Your task to perform on an android device: Show the shopping cart on bestbuy.com. Search for dell alienware on bestbuy.com, select the first entry, and add it to the cart. Image 0: 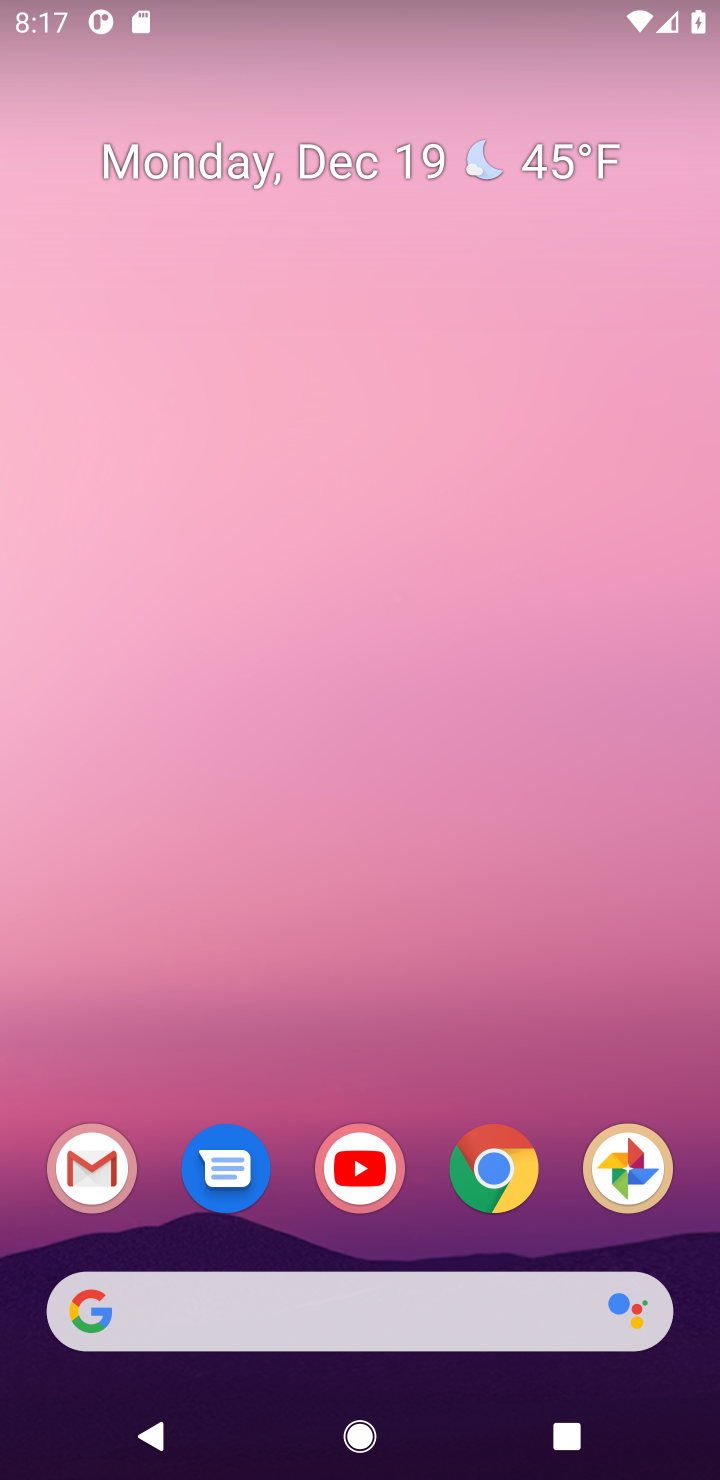
Step 0: click (501, 1172)
Your task to perform on an android device: Show the shopping cart on bestbuy.com. Search for dell alienware on bestbuy.com, select the first entry, and add it to the cart. Image 1: 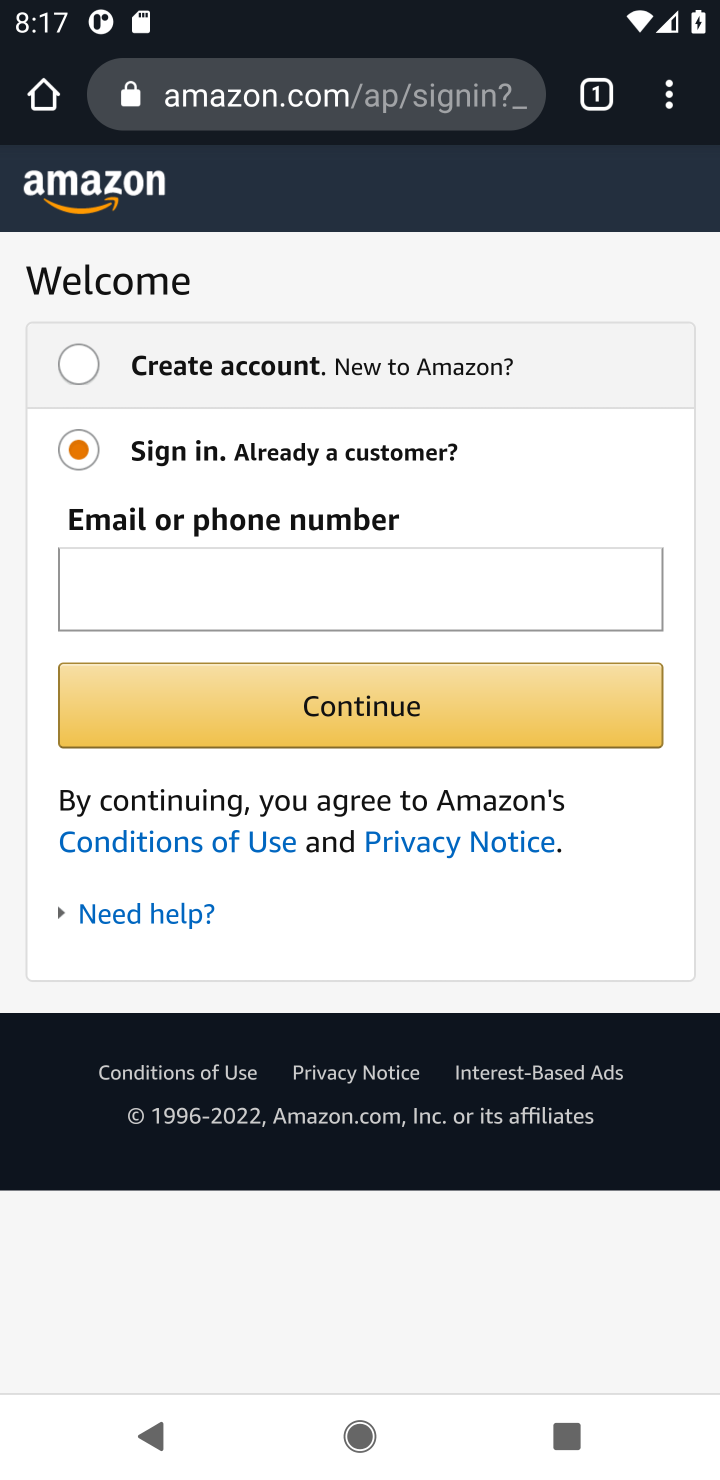
Step 1: click (259, 97)
Your task to perform on an android device: Show the shopping cart on bestbuy.com. Search for dell alienware on bestbuy.com, select the first entry, and add it to the cart. Image 2: 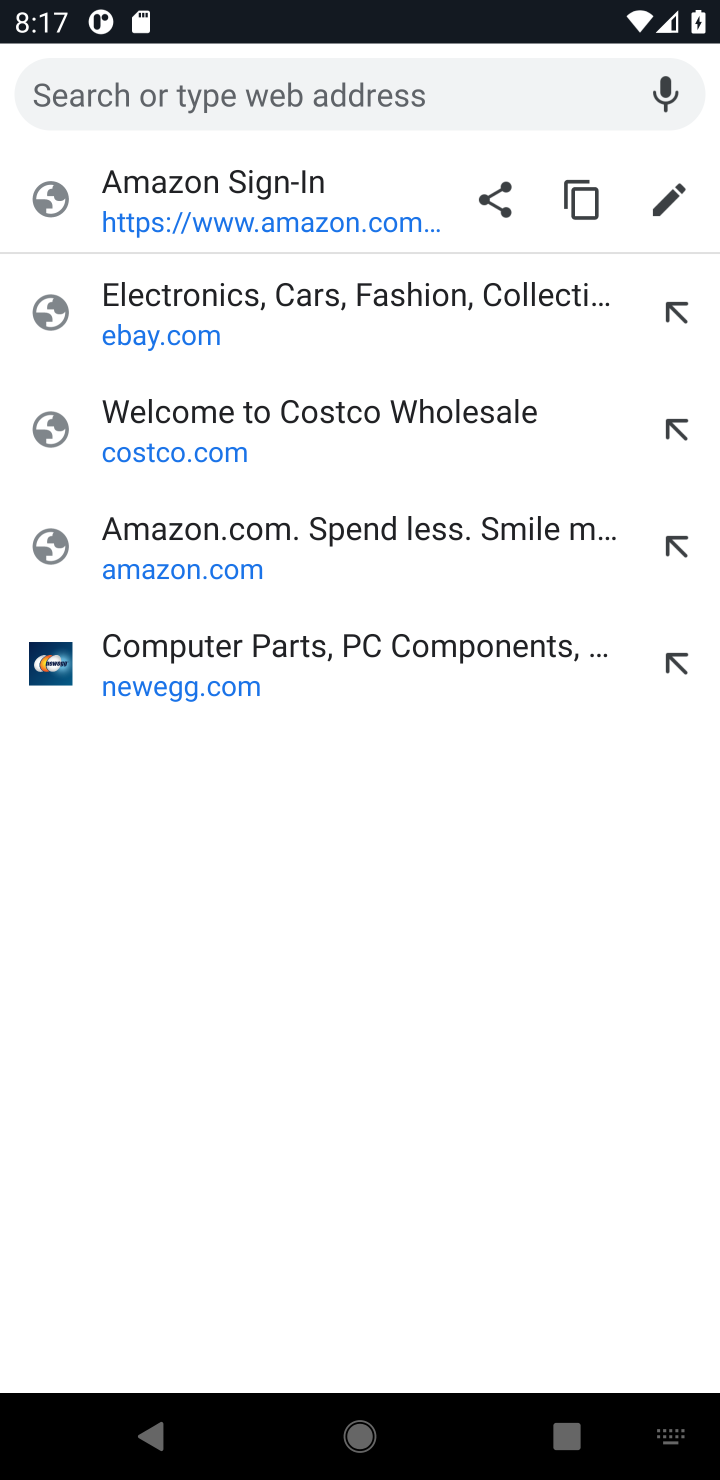
Step 2: type "bestbuy.com"
Your task to perform on an android device: Show the shopping cart on bestbuy.com. Search for dell alienware on bestbuy.com, select the first entry, and add it to the cart. Image 3: 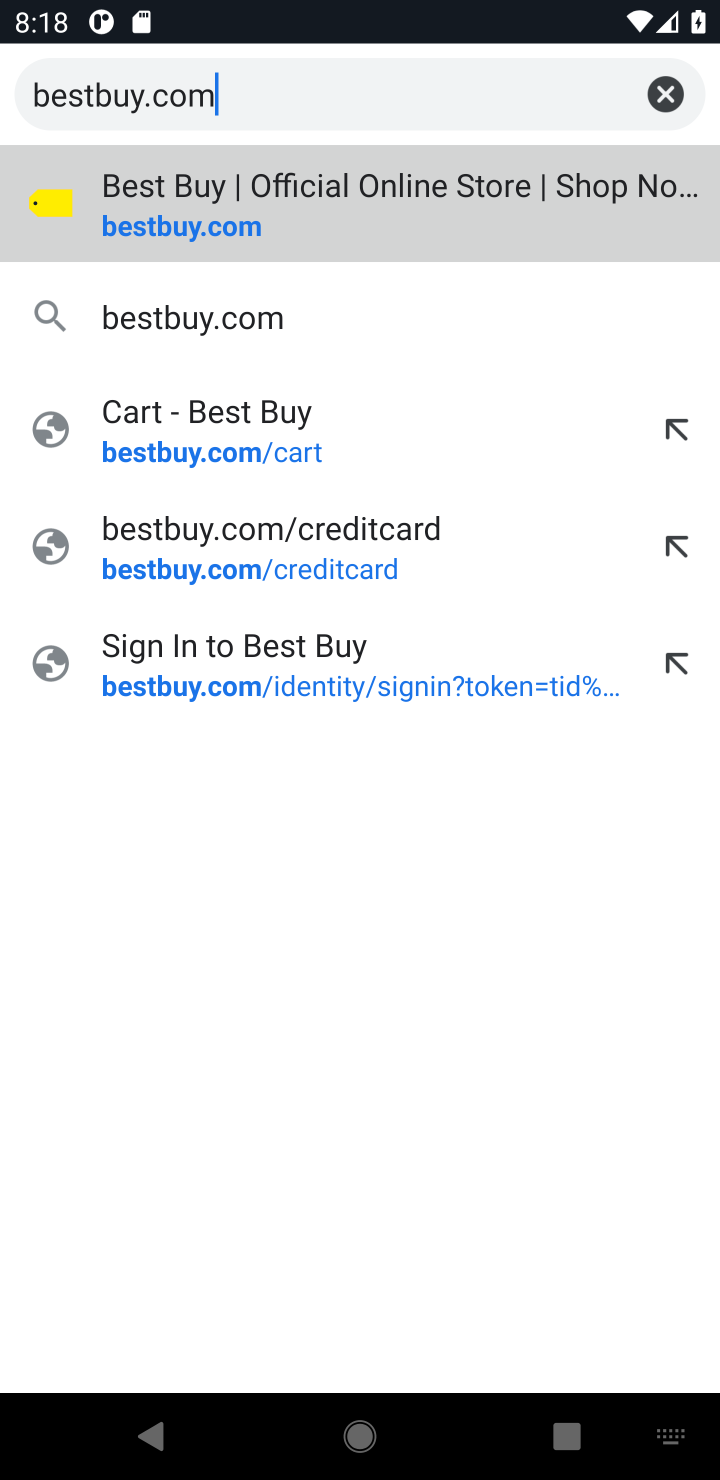
Step 3: click (188, 235)
Your task to perform on an android device: Show the shopping cart on bestbuy.com. Search for dell alienware on bestbuy.com, select the first entry, and add it to the cart. Image 4: 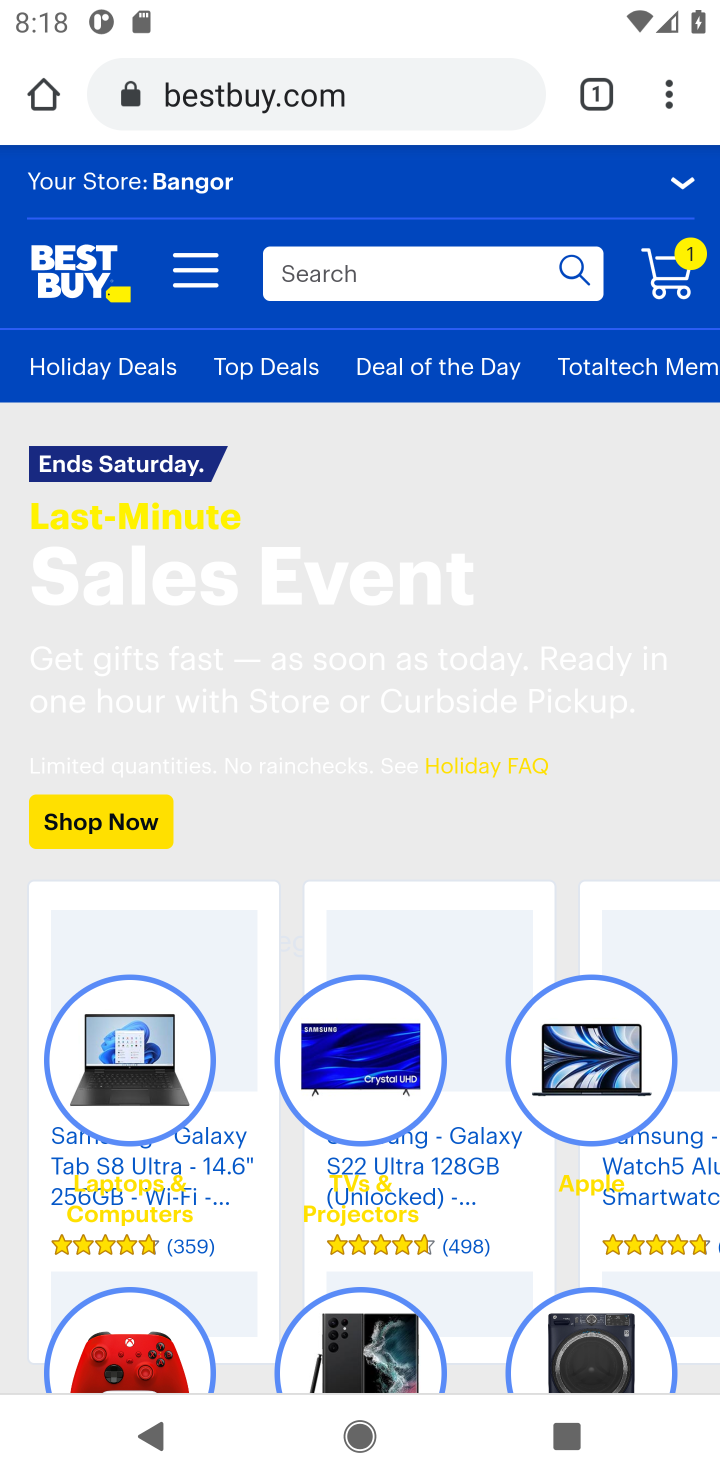
Step 4: click (677, 270)
Your task to perform on an android device: Show the shopping cart on bestbuy.com. Search for dell alienware on bestbuy.com, select the first entry, and add it to the cart. Image 5: 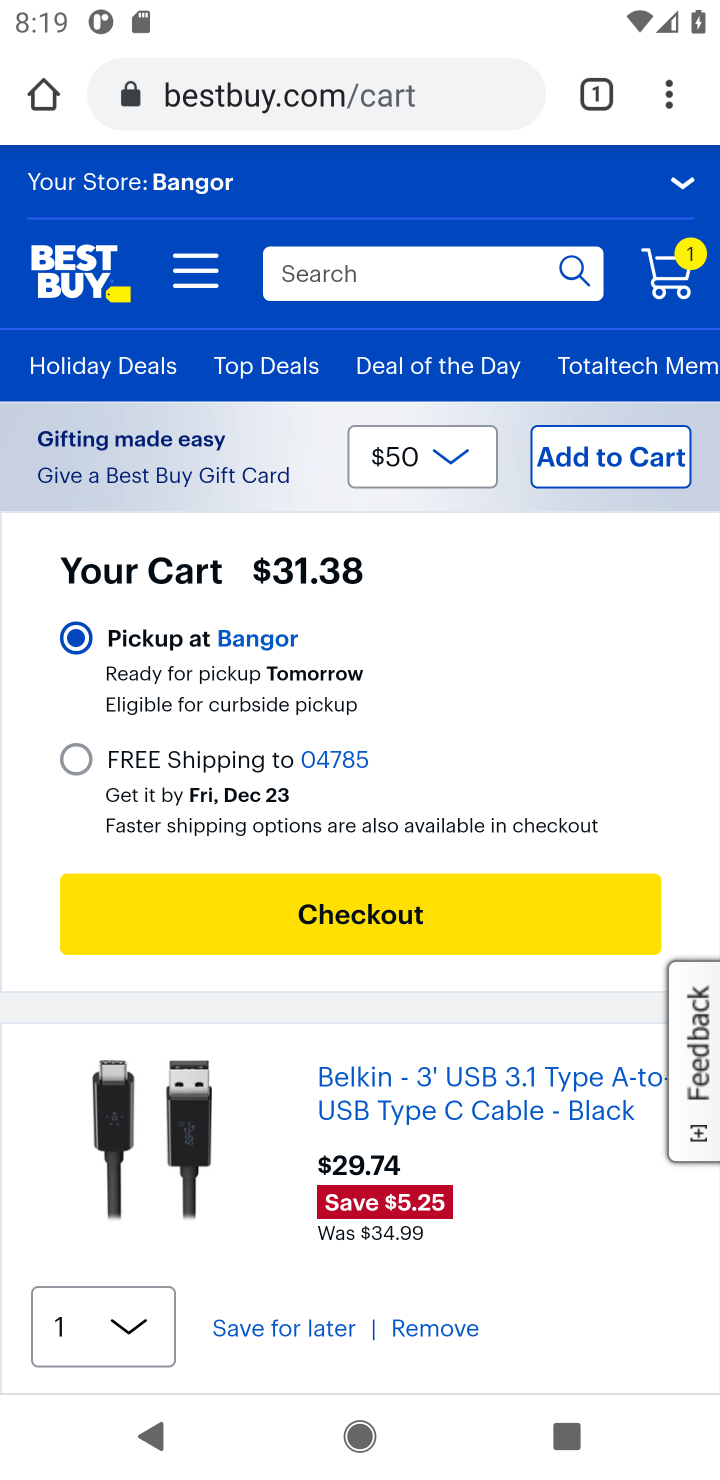
Step 5: click (379, 267)
Your task to perform on an android device: Show the shopping cart on bestbuy.com. Search for dell alienware on bestbuy.com, select the first entry, and add it to the cart. Image 6: 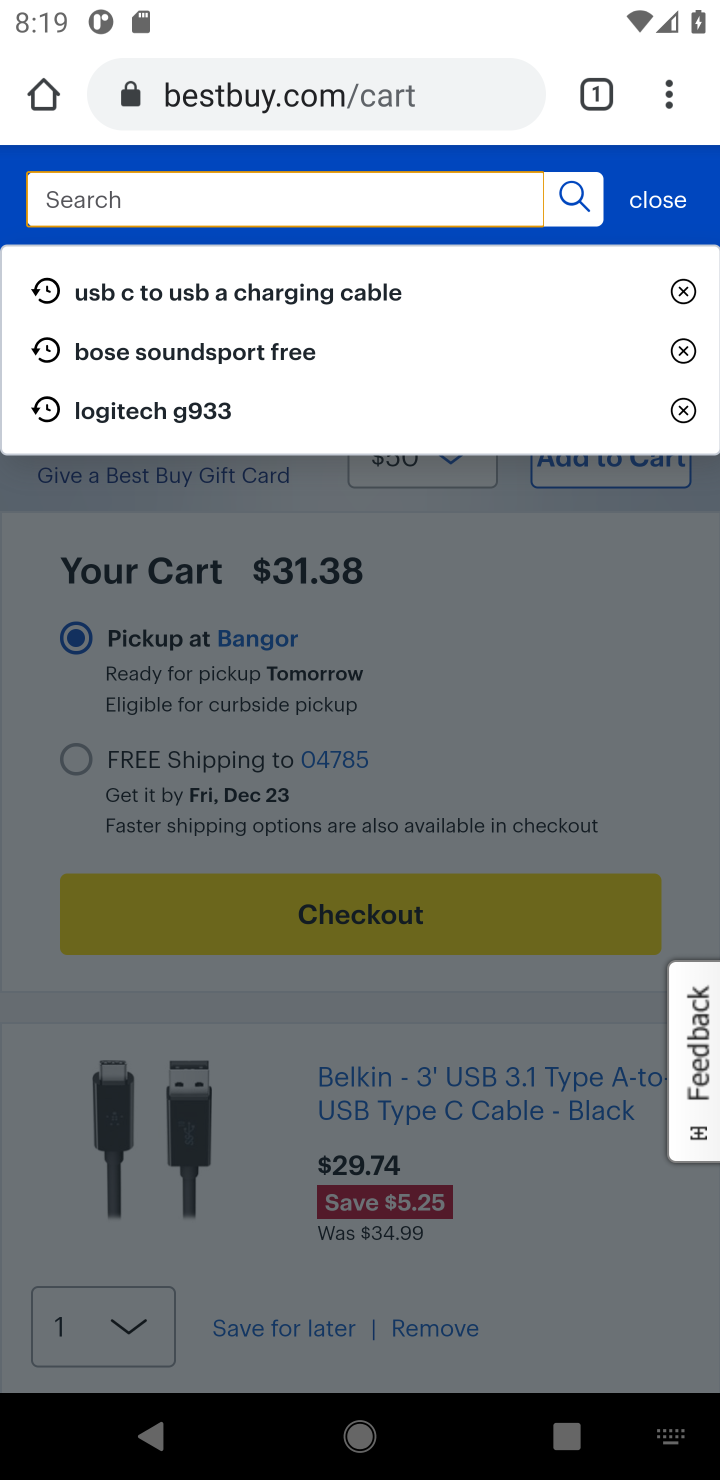
Step 6: type "dell alienware"
Your task to perform on an android device: Show the shopping cart on bestbuy.com. Search for dell alienware on bestbuy.com, select the first entry, and add it to the cart. Image 7: 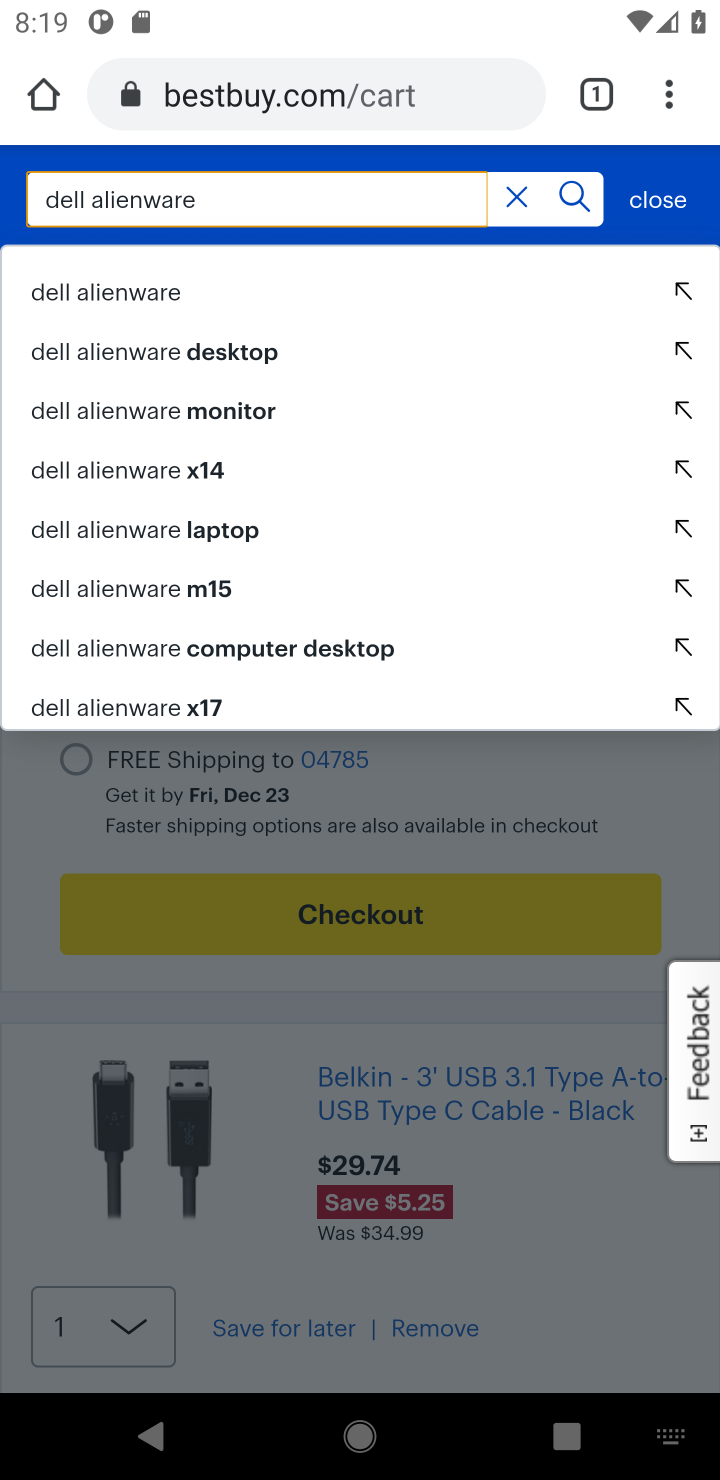
Step 7: click (58, 300)
Your task to perform on an android device: Show the shopping cart on bestbuy.com. Search for dell alienware on bestbuy.com, select the first entry, and add it to the cart. Image 8: 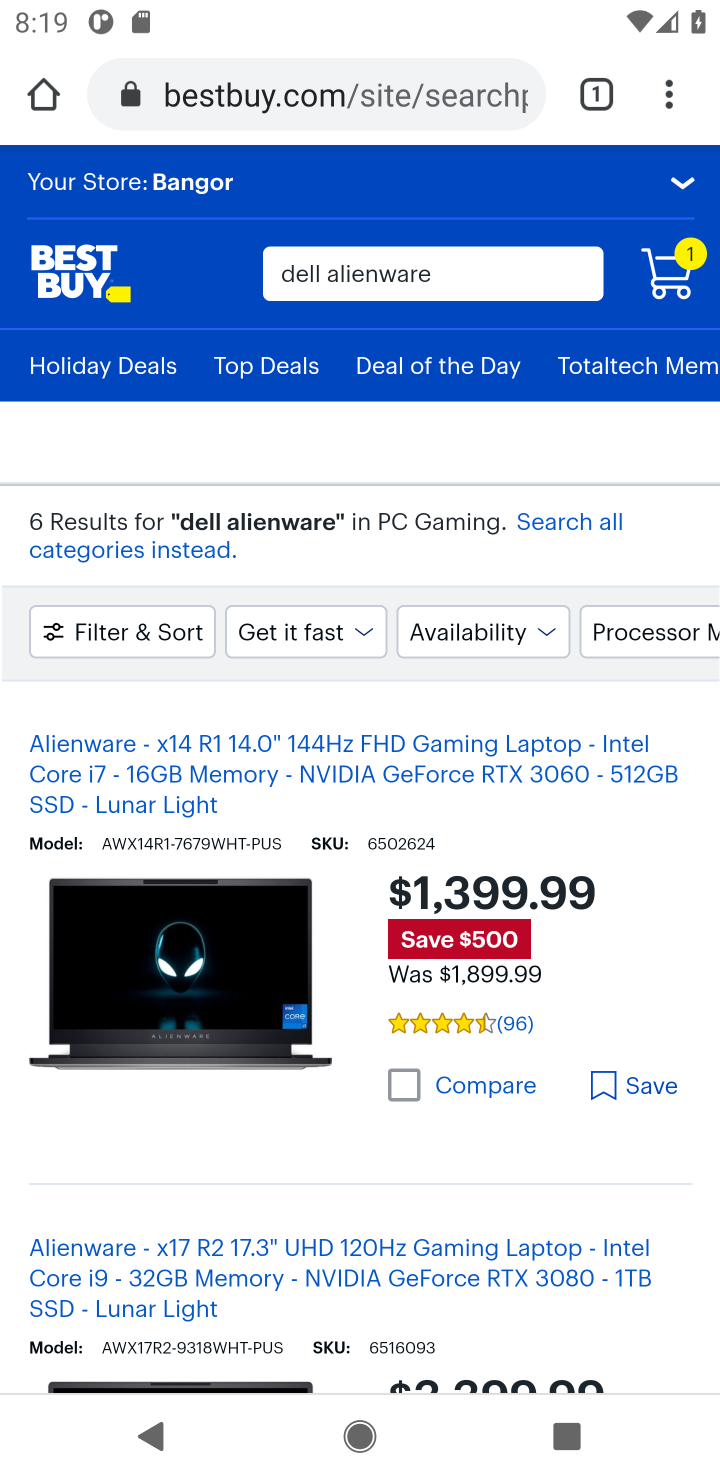
Step 8: drag from (273, 1080) to (245, 715)
Your task to perform on an android device: Show the shopping cart on bestbuy.com. Search for dell alienware on bestbuy.com, select the first entry, and add it to the cart. Image 9: 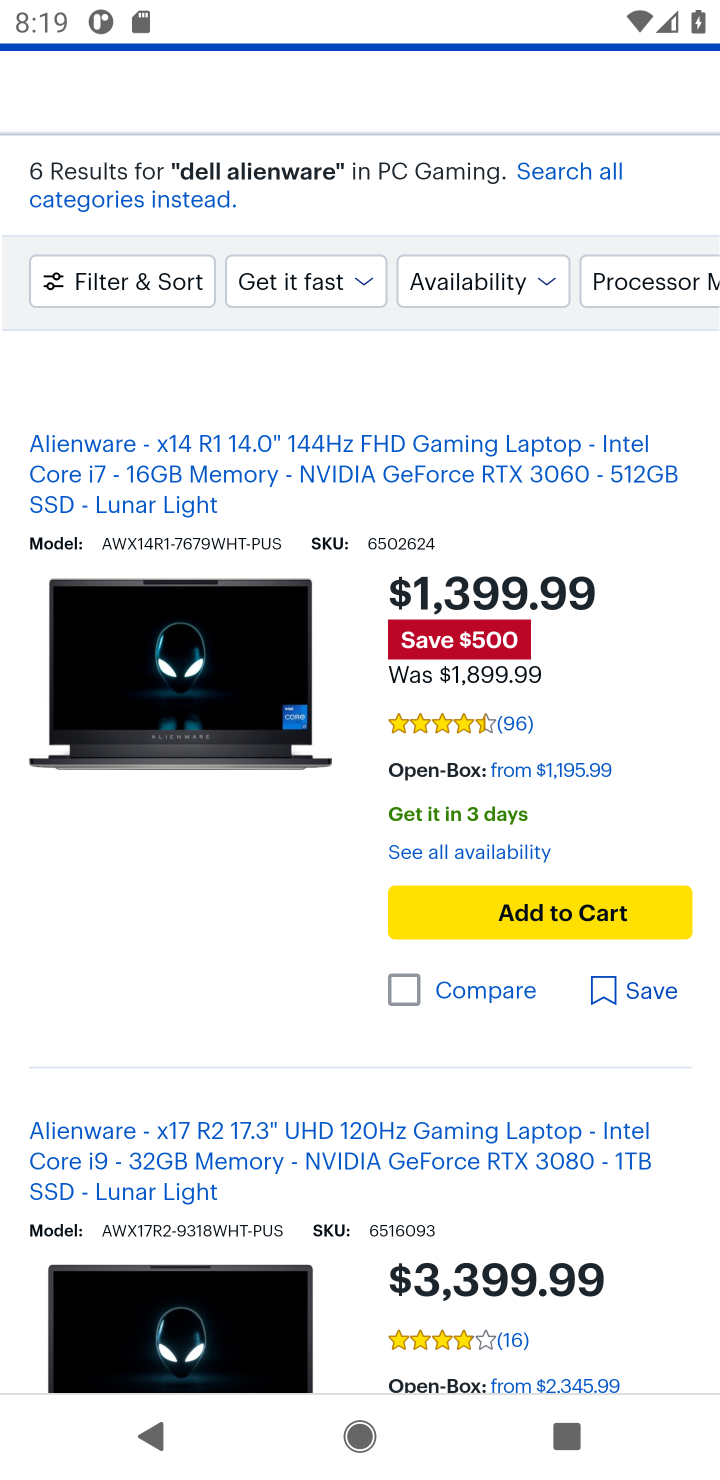
Step 9: click (152, 440)
Your task to perform on an android device: Show the shopping cart on bestbuy.com. Search for dell alienware on bestbuy.com, select the first entry, and add it to the cart. Image 10: 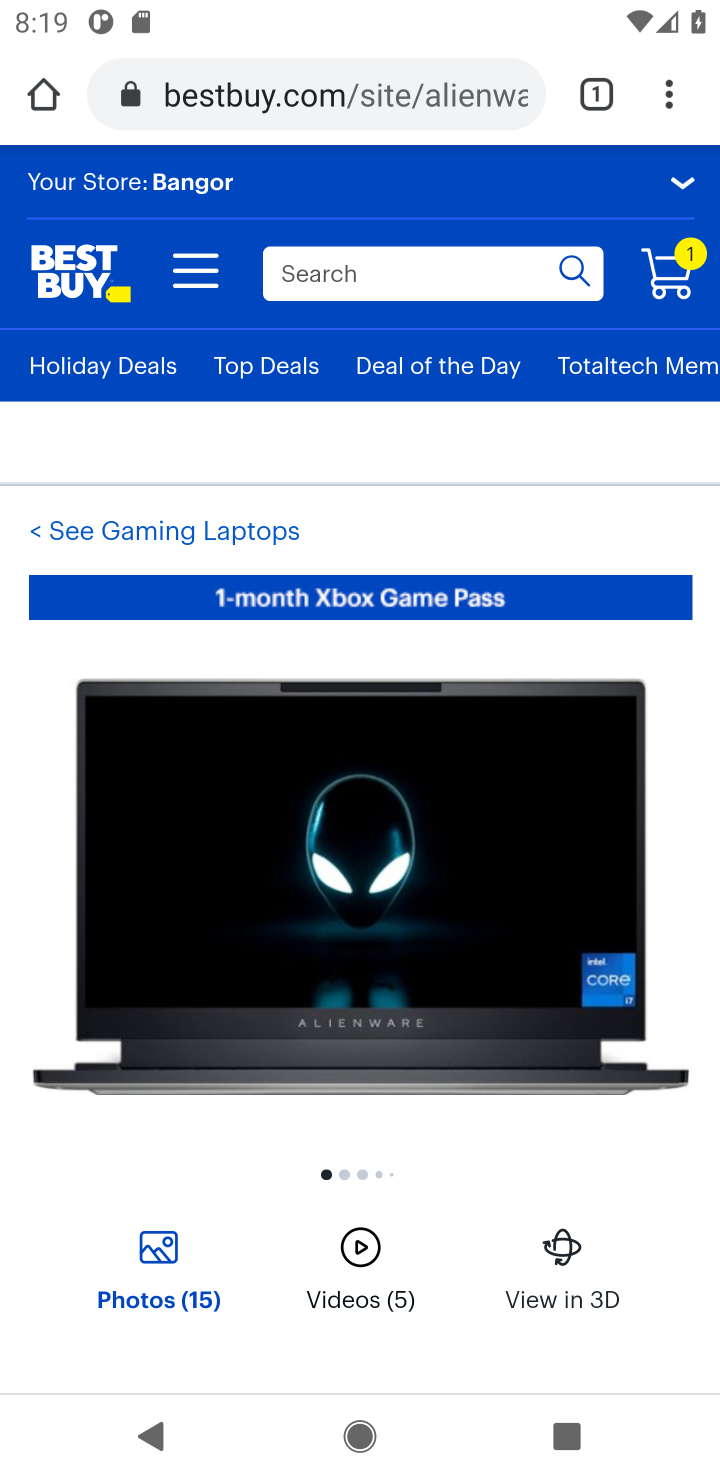
Step 10: drag from (369, 1095) to (349, 309)
Your task to perform on an android device: Show the shopping cart on bestbuy.com. Search for dell alienware on bestbuy.com, select the first entry, and add it to the cart. Image 11: 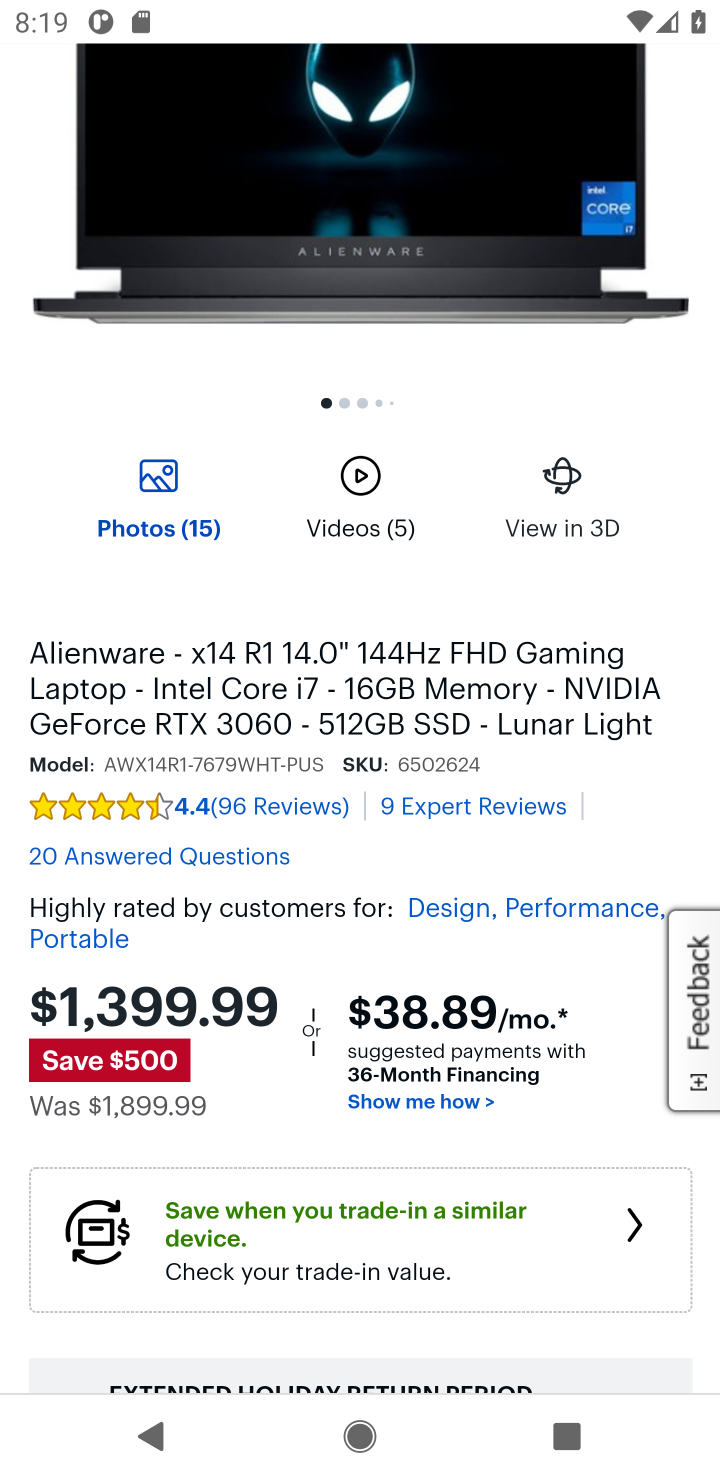
Step 11: drag from (379, 972) to (337, 348)
Your task to perform on an android device: Show the shopping cart on bestbuy.com. Search for dell alienware on bestbuy.com, select the first entry, and add it to the cart. Image 12: 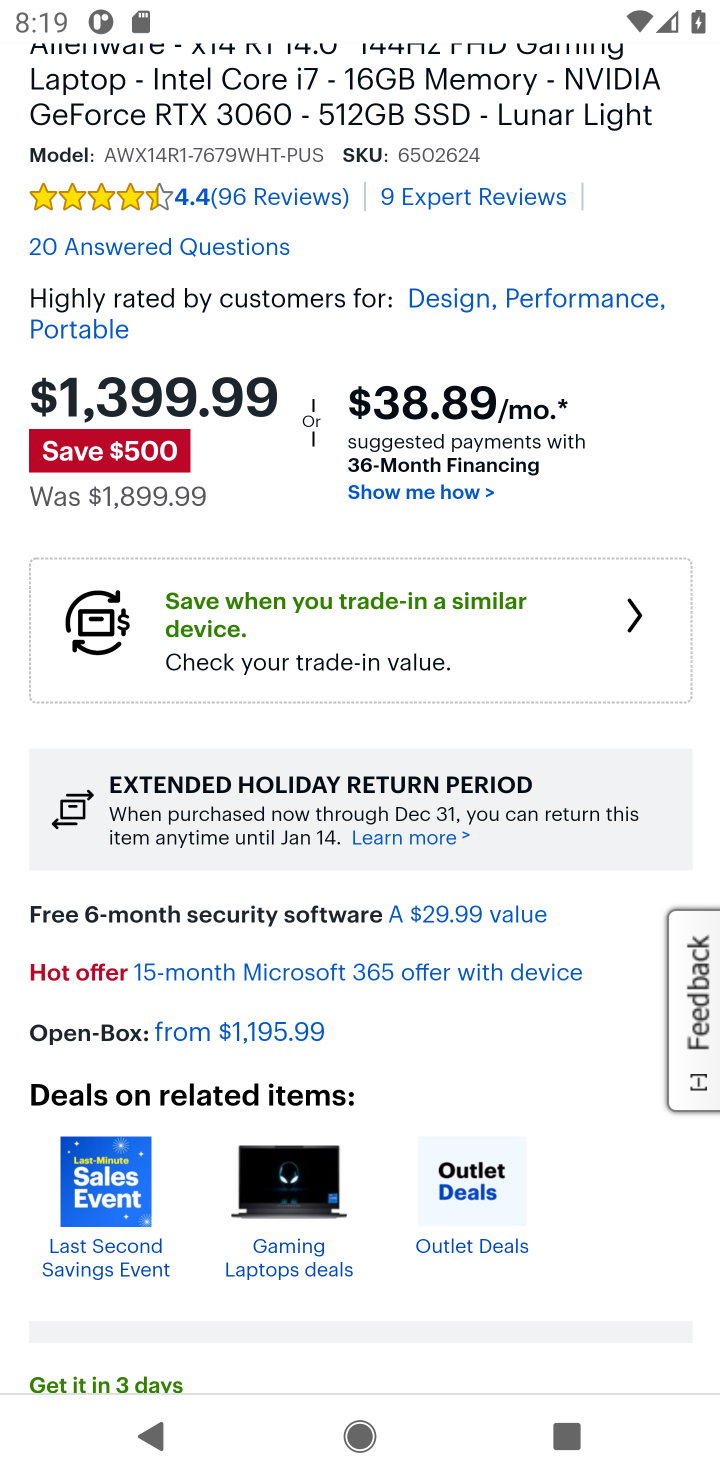
Step 12: drag from (387, 1066) to (387, 535)
Your task to perform on an android device: Show the shopping cart on bestbuy.com. Search for dell alienware on bestbuy.com, select the first entry, and add it to the cart. Image 13: 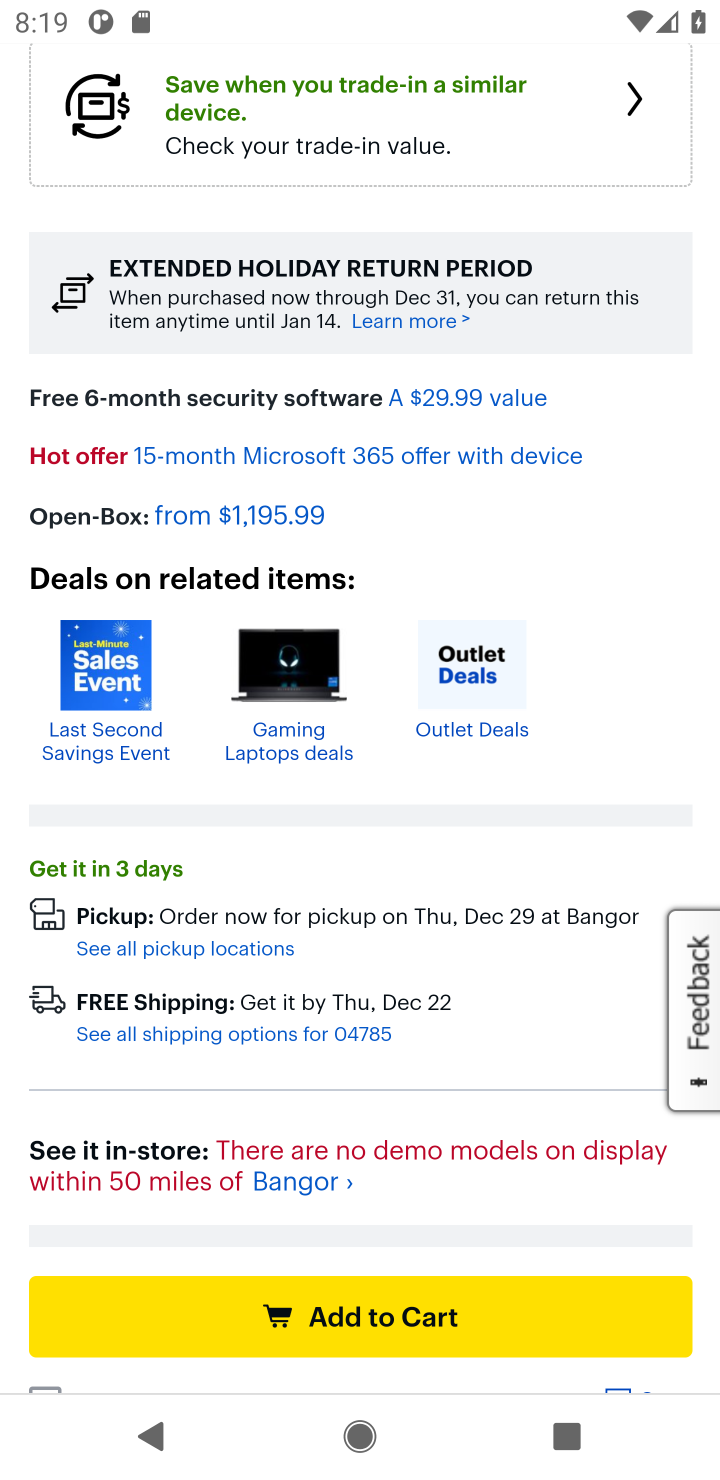
Step 13: click (358, 1315)
Your task to perform on an android device: Show the shopping cart on bestbuy.com. Search for dell alienware on bestbuy.com, select the first entry, and add it to the cart. Image 14: 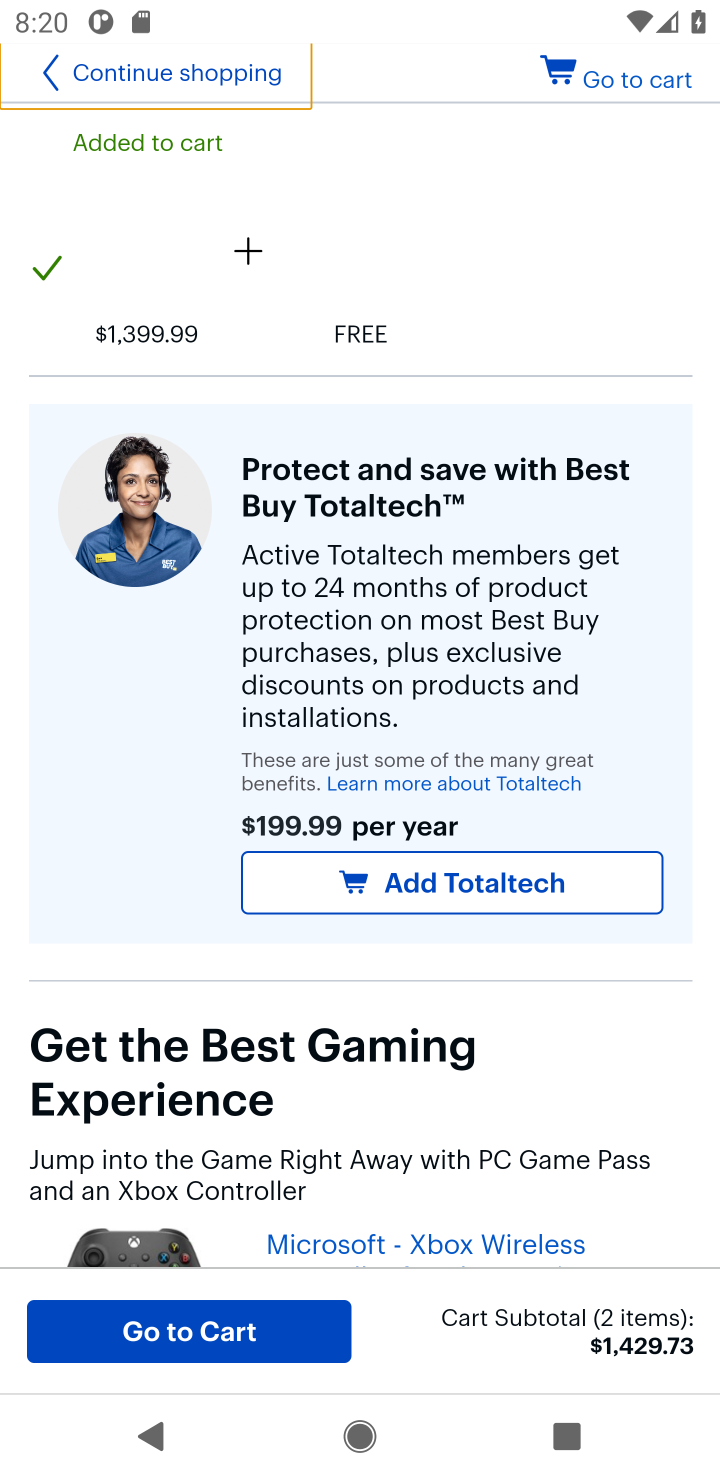
Step 14: task complete